Your task to perform on an android device: Go to Maps Image 0: 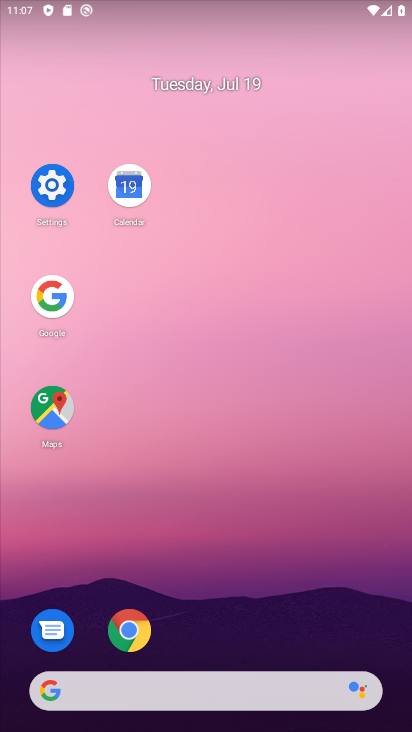
Step 0: click (54, 407)
Your task to perform on an android device: Go to Maps Image 1: 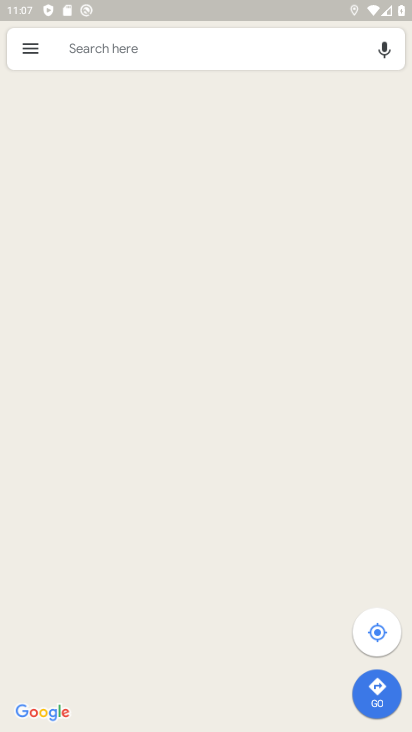
Step 1: task complete